Your task to perform on an android device: turn off wifi Image 0: 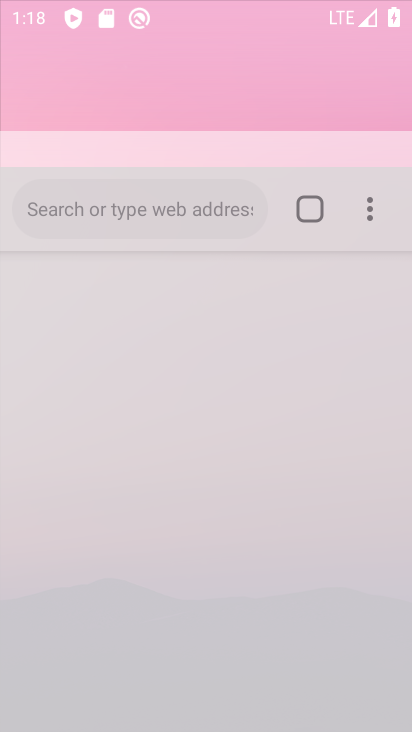
Step 0: click (293, 73)
Your task to perform on an android device: turn off wifi Image 1: 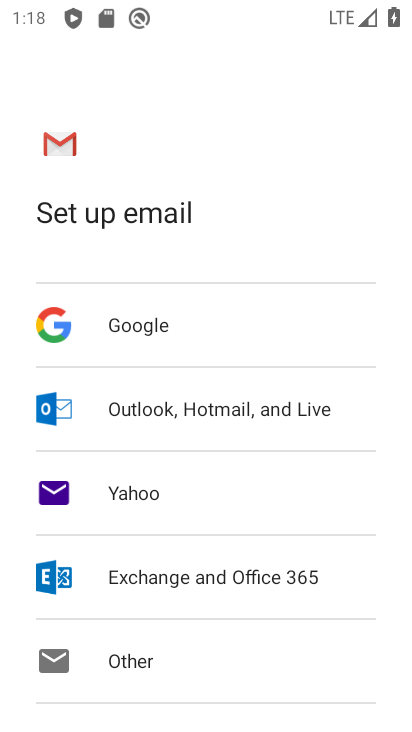
Step 1: task complete